Your task to perform on an android device: Open the phone app and click the voicemail tab. Image 0: 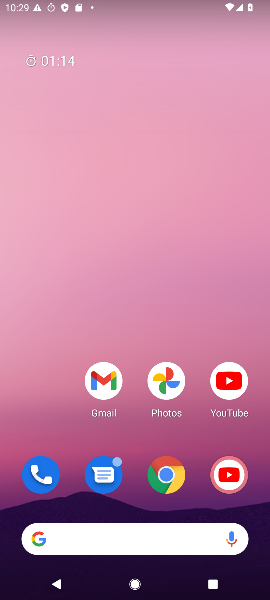
Step 0: drag from (133, 485) to (166, 69)
Your task to perform on an android device: Open the phone app and click the voicemail tab. Image 1: 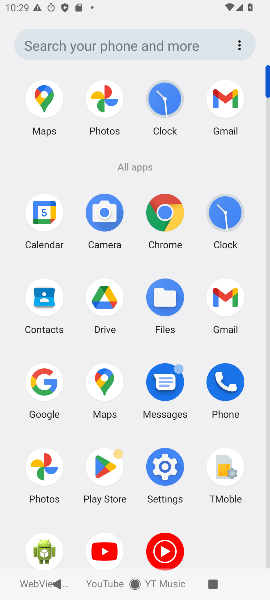
Step 1: click (219, 397)
Your task to perform on an android device: Open the phone app and click the voicemail tab. Image 2: 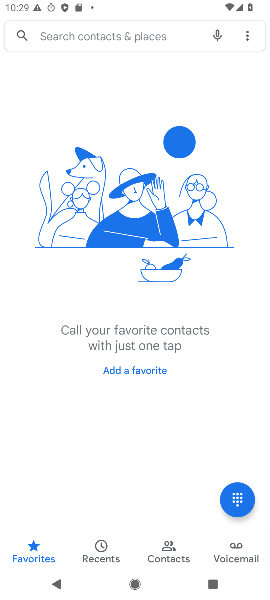
Step 2: click (234, 540)
Your task to perform on an android device: Open the phone app and click the voicemail tab. Image 3: 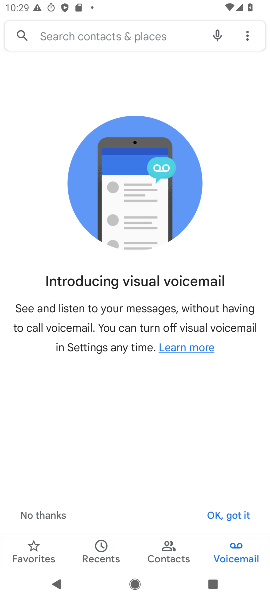
Step 3: click (238, 511)
Your task to perform on an android device: Open the phone app and click the voicemail tab. Image 4: 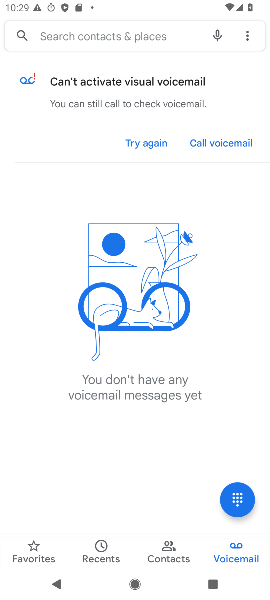
Step 4: task complete